Your task to perform on an android device: Open calendar and show me the fourth week of next month Image 0: 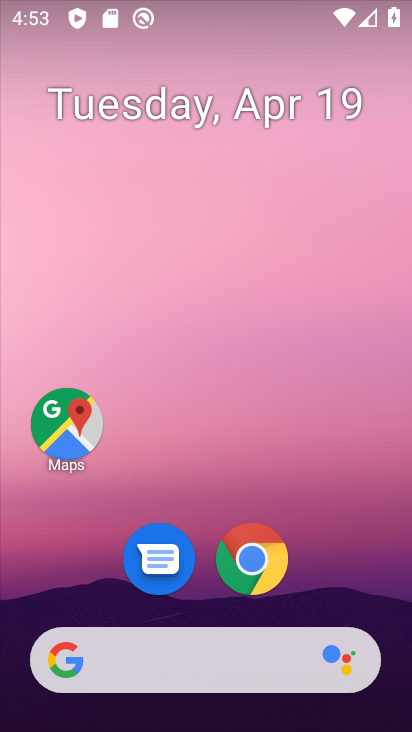
Step 0: drag from (365, 553) to (223, 259)
Your task to perform on an android device: Open calendar and show me the fourth week of next month Image 1: 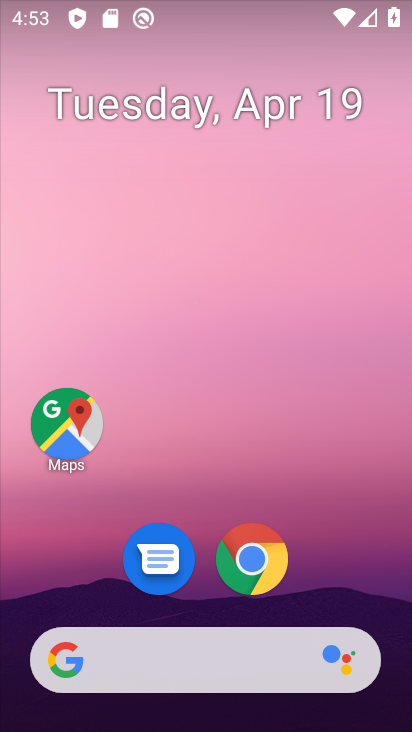
Step 1: drag from (327, 519) to (162, 148)
Your task to perform on an android device: Open calendar and show me the fourth week of next month Image 2: 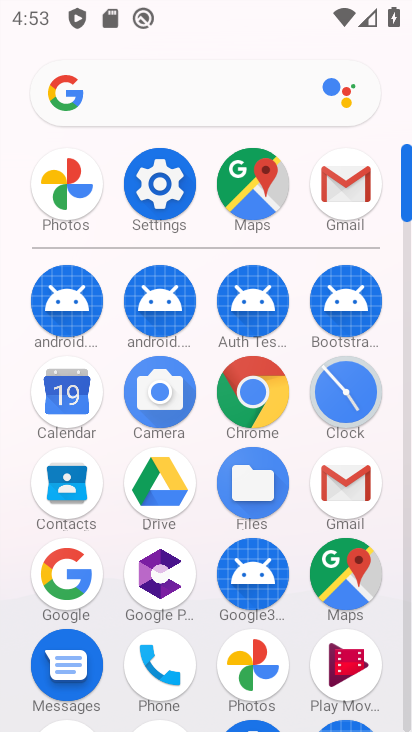
Step 2: click (37, 410)
Your task to perform on an android device: Open calendar and show me the fourth week of next month Image 3: 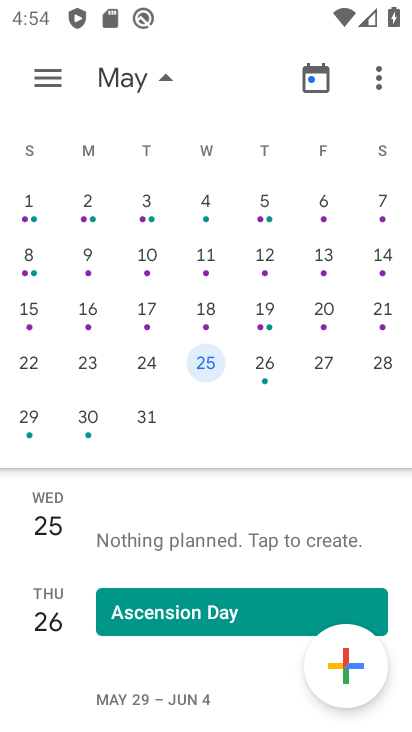
Step 3: task complete